Your task to perform on an android device: turn on javascript in the chrome app Image 0: 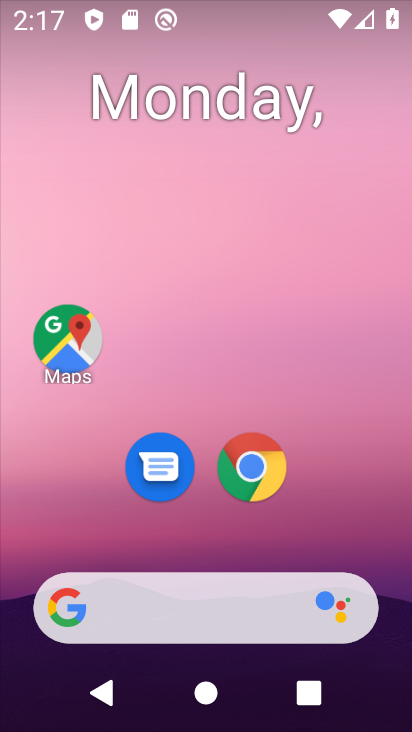
Step 0: click (252, 450)
Your task to perform on an android device: turn on javascript in the chrome app Image 1: 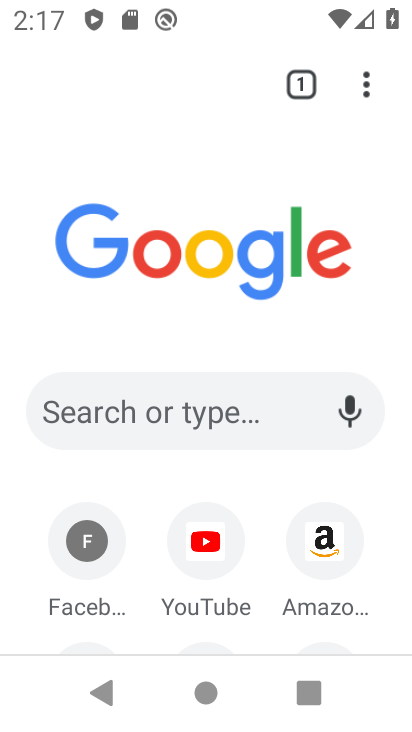
Step 1: click (366, 83)
Your task to perform on an android device: turn on javascript in the chrome app Image 2: 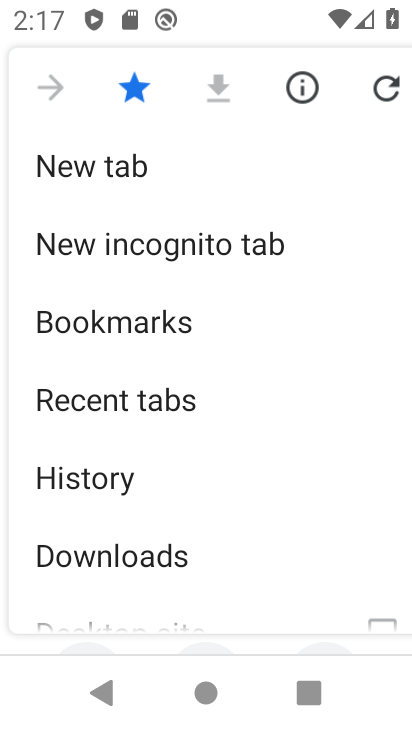
Step 2: drag from (222, 568) to (222, 94)
Your task to perform on an android device: turn on javascript in the chrome app Image 3: 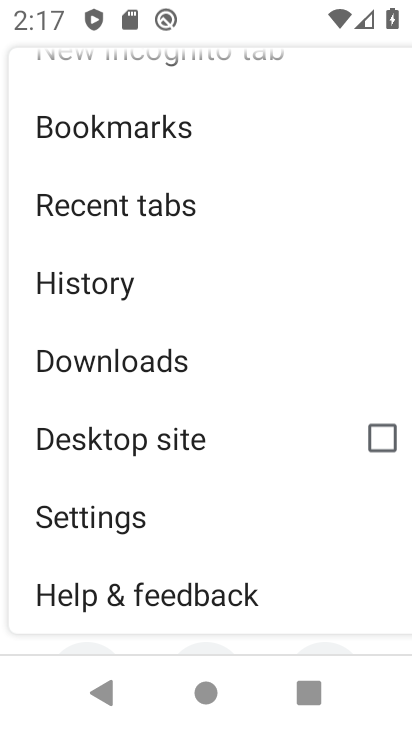
Step 3: click (149, 527)
Your task to perform on an android device: turn on javascript in the chrome app Image 4: 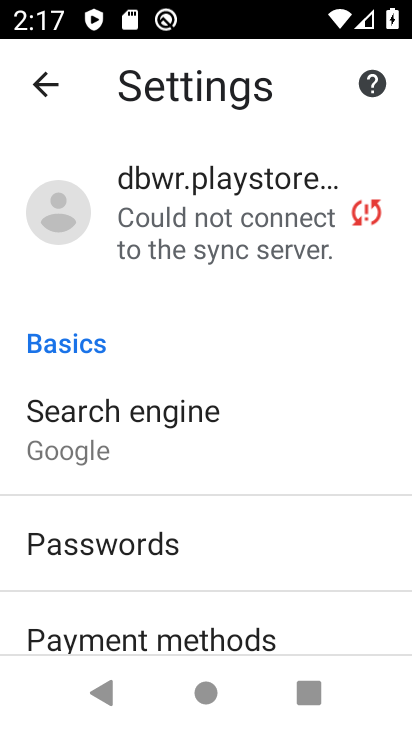
Step 4: drag from (283, 635) to (277, 159)
Your task to perform on an android device: turn on javascript in the chrome app Image 5: 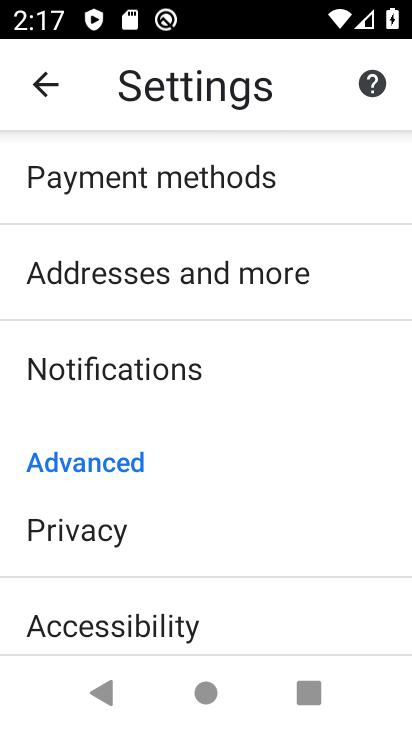
Step 5: drag from (300, 615) to (274, 191)
Your task to perform on an android device: turn on javascript in the chrome app Image 6: 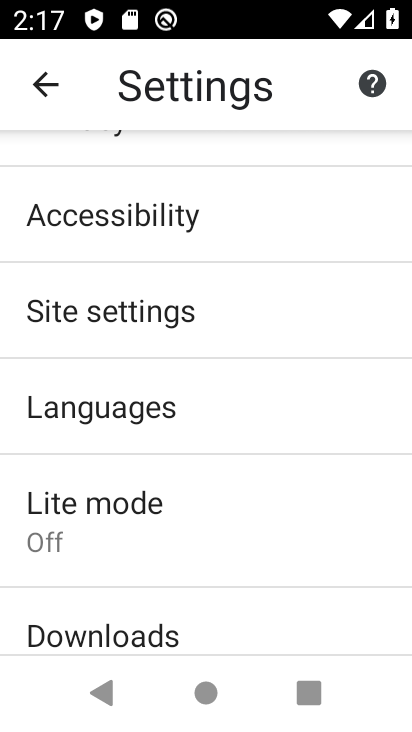
Step 6: click (227, 326)
Your task to perform on an android device: turn on javascript in the chrome app Image 7: 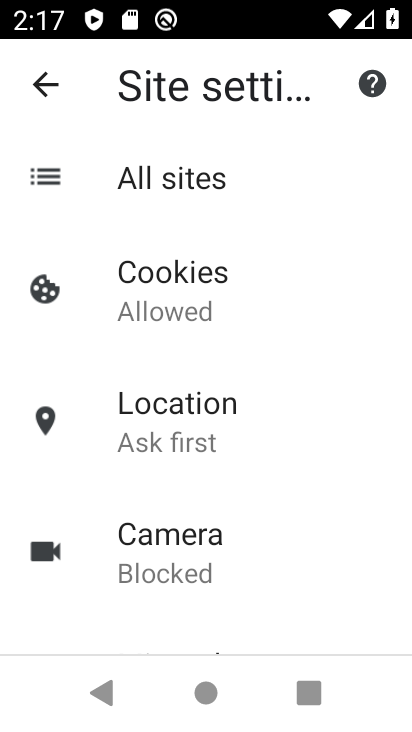
Step 7: drag from (292, 678) to (225, 565)
Your task to perform on an android device: turn on javascript in the chrome app Image 8: 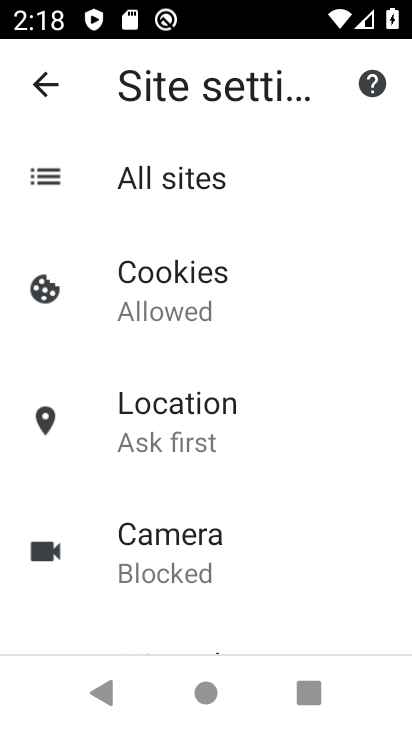
Step 8: drag from (246, 583) to (228, 189)
Your task to perform on an android device: turn on javascript in the chrome app Image 9: 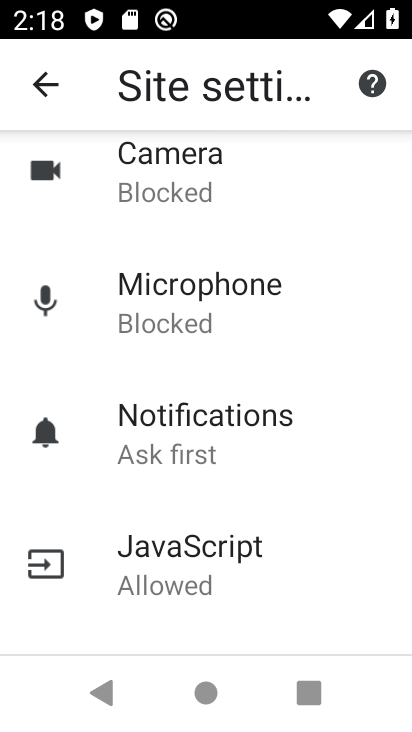
Step 9: click (230, 548)
Your task to perform on an android device: turn on javascript in the chrome app Image 10: 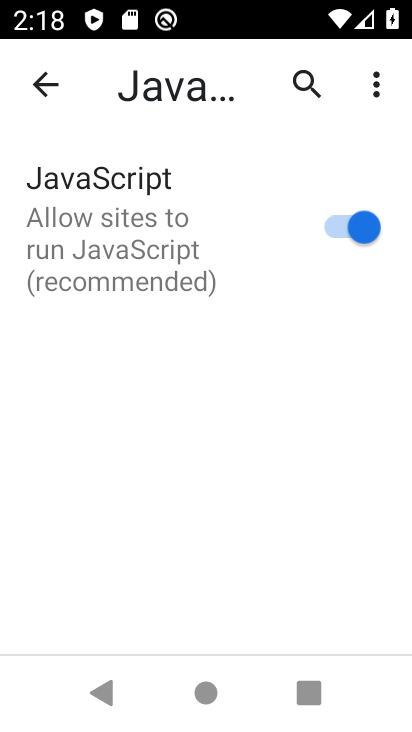
Step 10: task complete